Your task to perform on an android device: open sync settings in chrome Image 0: 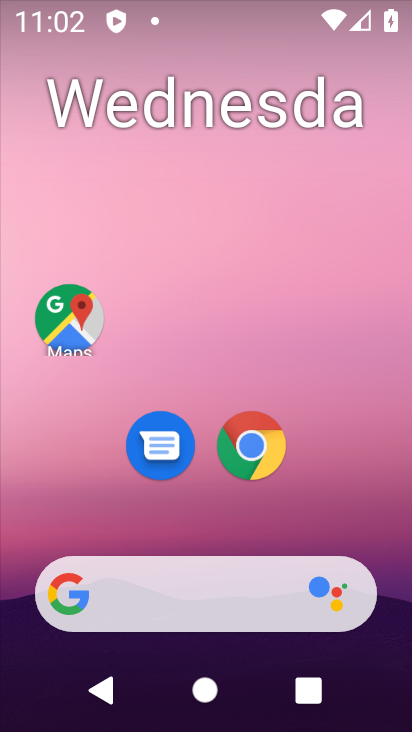
Step 0: drag from (357, 479) to (332, 90)
Your task to perform on an android device: open sync settings in chrome Image 1: 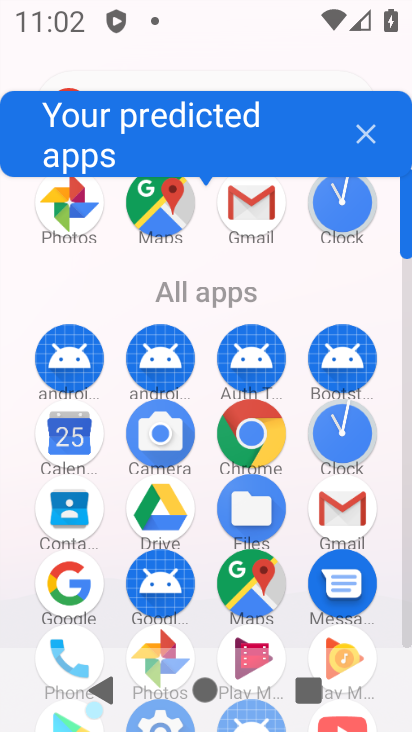
Step 1: click (259, 418)
Your task to perform on an android device: open sync settings in chrome Image 2: 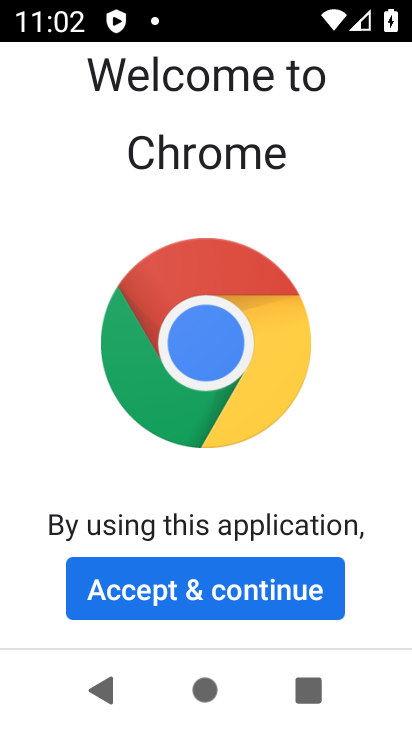
Step 2: click (321, 612)
Your task to perform on an android device: open sync settings in chrome Image 3: 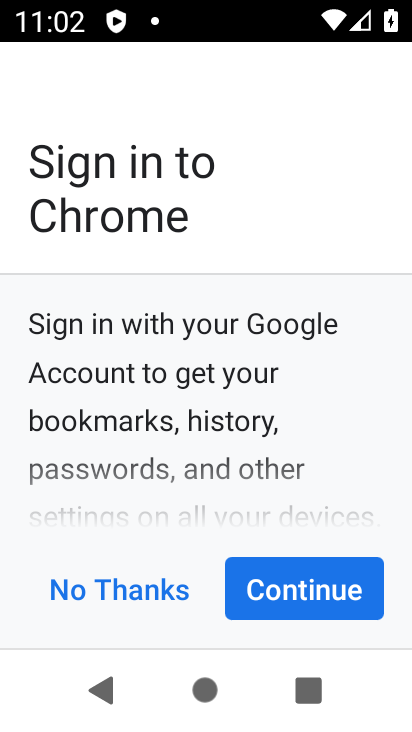
Step 3: click (330, 573)
Your task to perform on an android device: open sync settings in chrome Image 4: 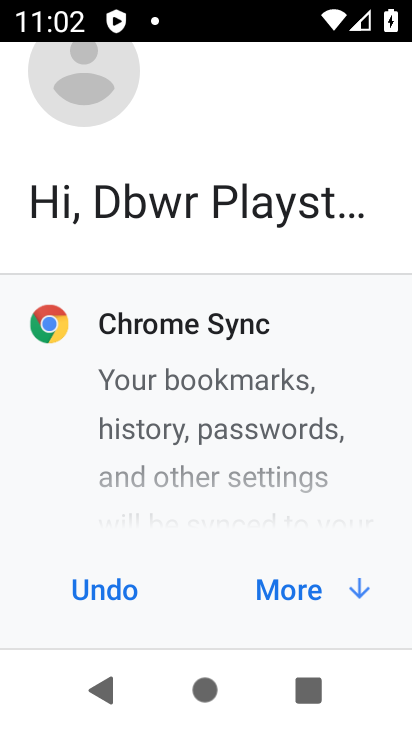
Step 4: click (330, 573)
Your task to perform on an android device: open sync settings in chrome Image 5: 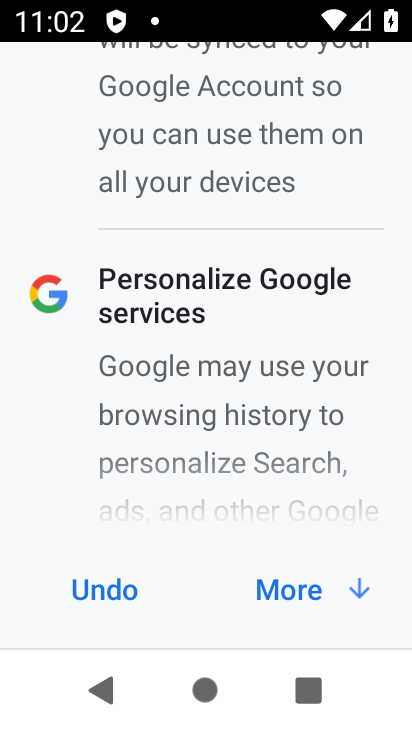
Step 5: click (329, 582)
Your task to perform on an android device: open sync settings in chrome Image 6: 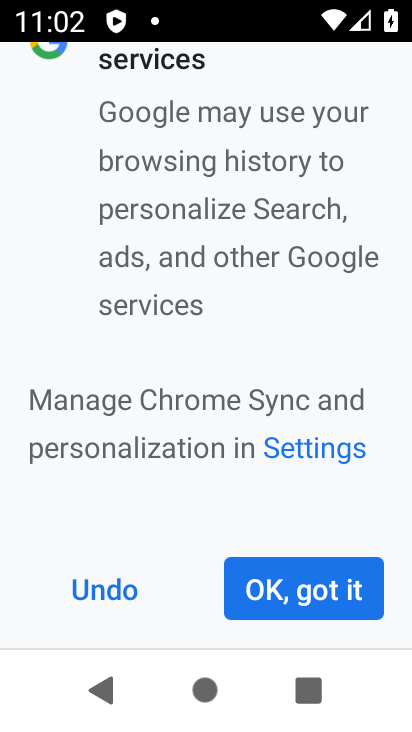
Step 6: click (329, 582)
Your task to perform on an android device: open sync settings in chrome Image 7: 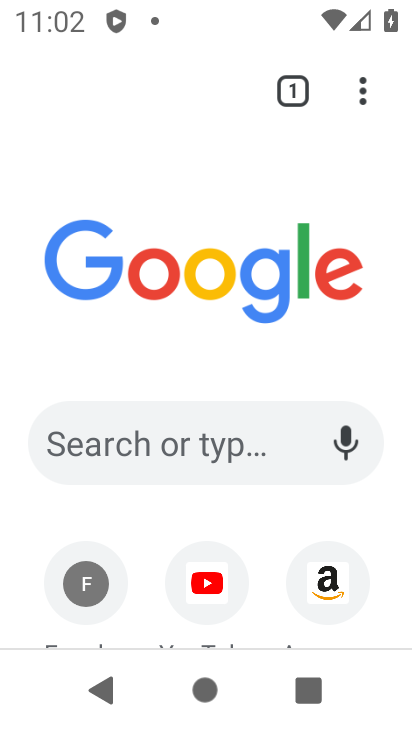
Step 7: click (361, 98)
Your task to perform on an android device: open sync settings in chrome Image 8: 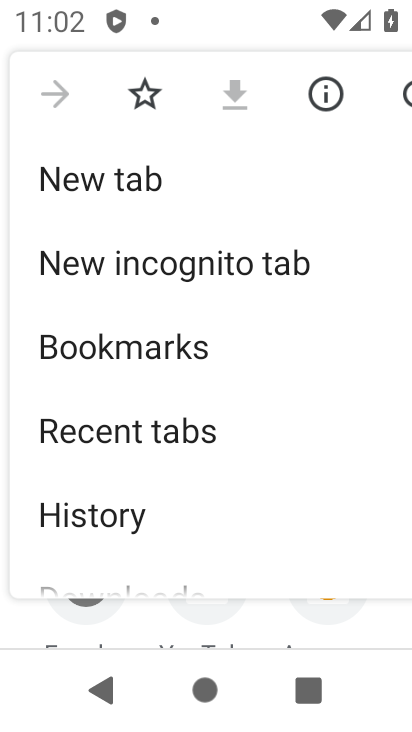
Step 8: drag from (199, 479) to (247, 193)
Your task to perform on an android device: open sync settings in chrome Image 9: 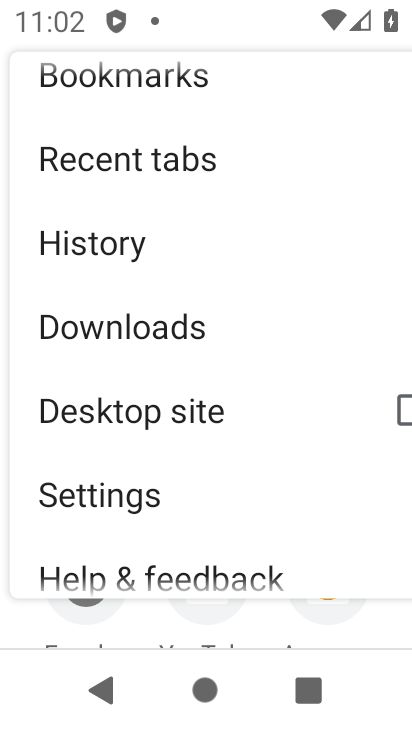
Step 9: click (205, 496)
Your task to perform on an android device: open sync settings in chrome Image 10: 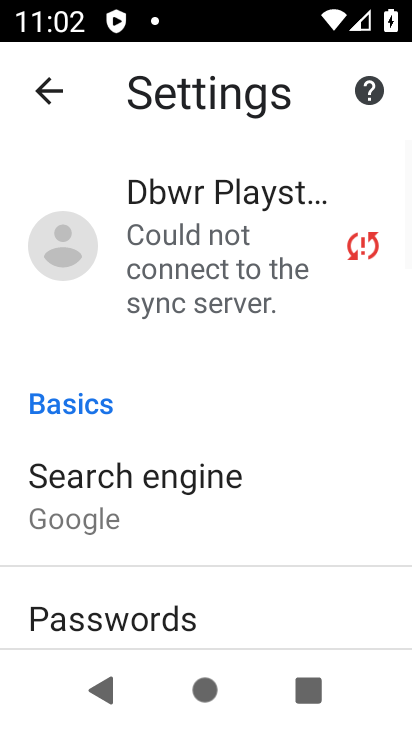
Step 10: drag from (209, 510) to (223, 181)
Your task to perform on an android device: open sync settings in chrome Image 11: 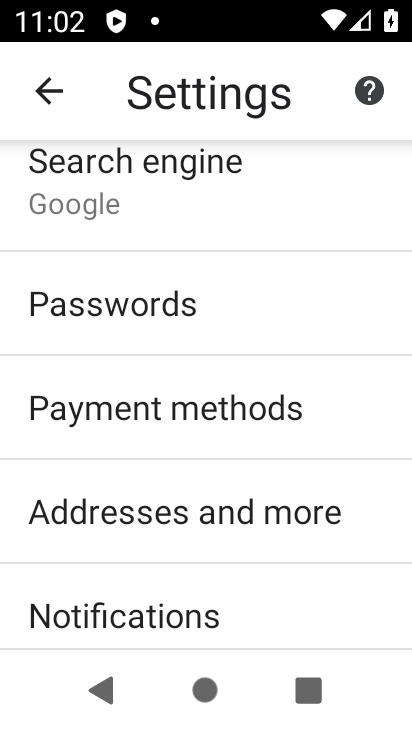
Step 11: drag from (251, 568) to (252, 333)
Your task to perform on an android device: open sync settings in chrome Image 12: 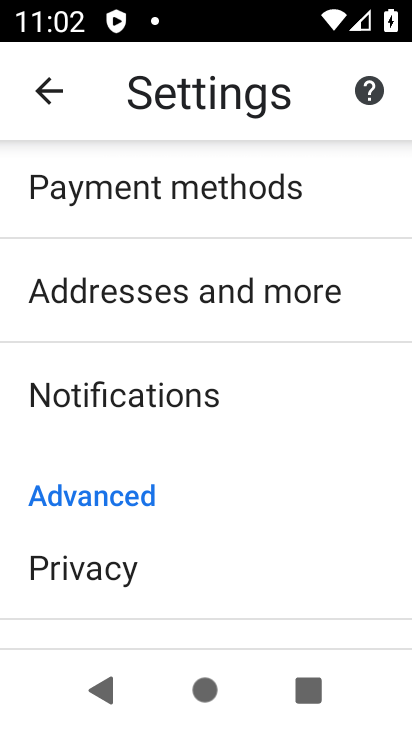
Step 12: drag from (223, 565) to (227, 245)
Your task to perform on an android device: open sync settings in chrome Image 13: 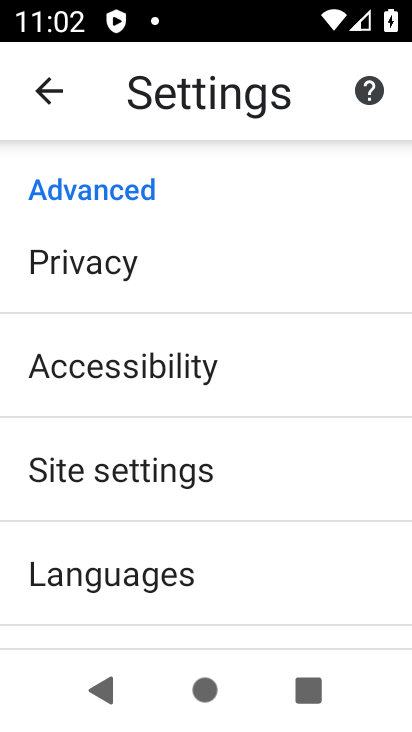
Step 13: drag from (234, 538) to (230, 303)
Your task to perform on an android device: open sync settings in chrome Image 14: 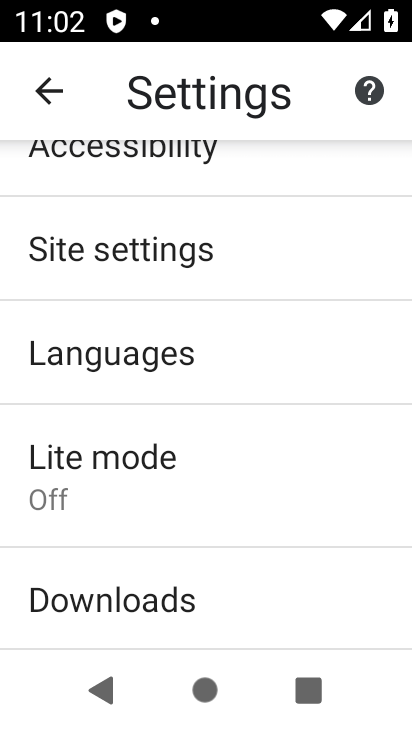
Step 14: drag from (223, 523) to (250, 297)
Your task to perform on an android device: open sync settings in chrome Image 15: 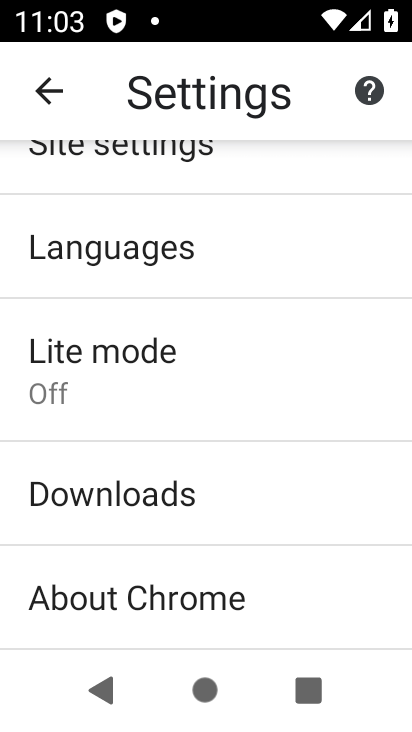
Step 15: drag from (273, 222) to (279, 484)
Your task to perform on an android device: open sync settings in chrome Image 16: 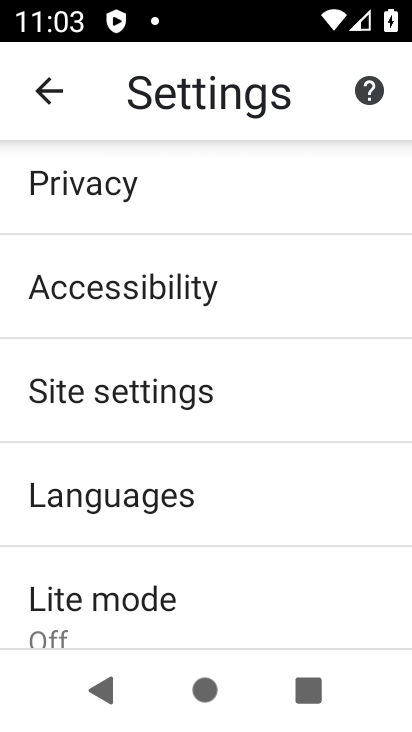
Step 16: click (222, 395)
Your task to perform on an android device: open sync settings in chrome Image 17: 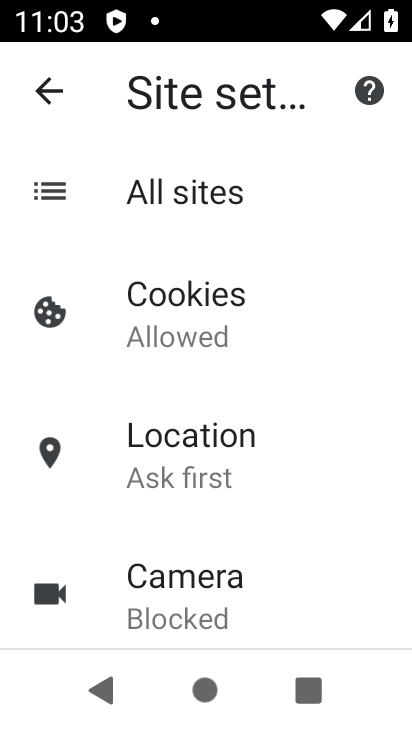
Step 17: drag from (282, 617) to (290, 407)
Your task to perform on an android device: open sync settings in chrome Image 18: 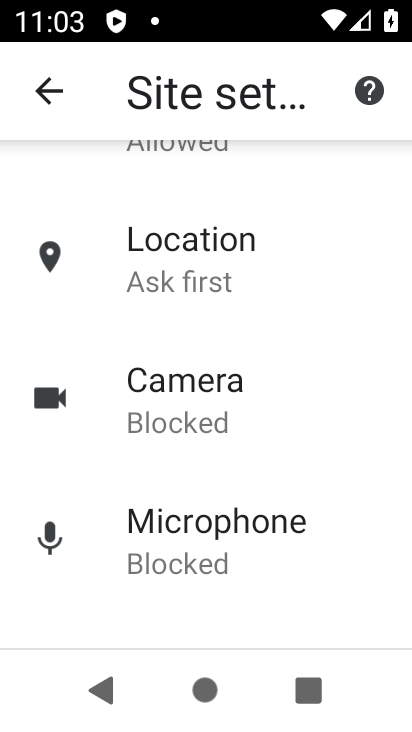
Step 18: drag from (257, 585) to (262, 310)
Your task to perform on an android device: open sync settings in chrome Image 19: 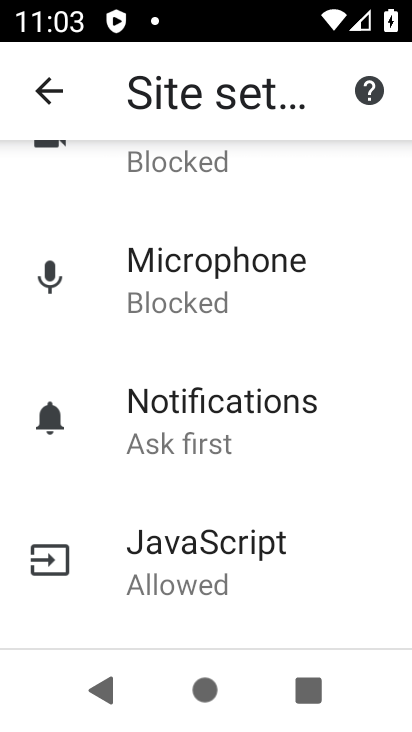
Step 19: drag from (289, 576) to (291, 300)
Your task to perform on an android device: open sync settings in chrome Image 20: 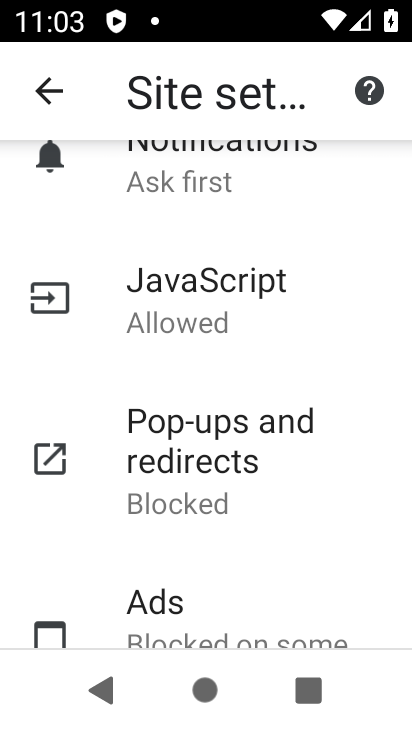
Step 20: drag from (276, 568) to (282, 264)
Your task to perform on an android device: open sync settings in chrome Image 21: 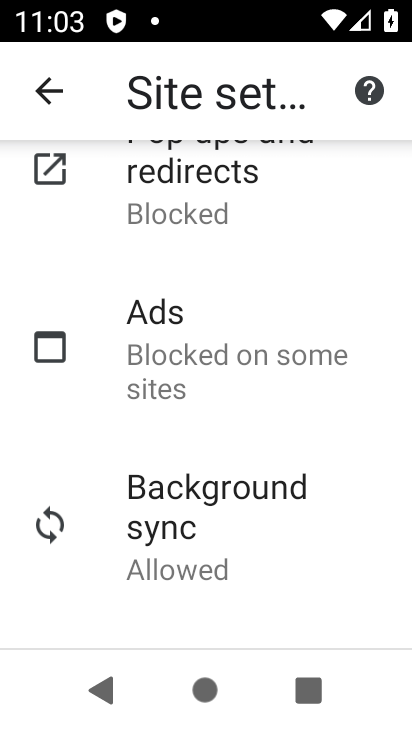
Step 21: click (213, 492)
Your task to perform on an android device: open sync settings in chrome Image 22: 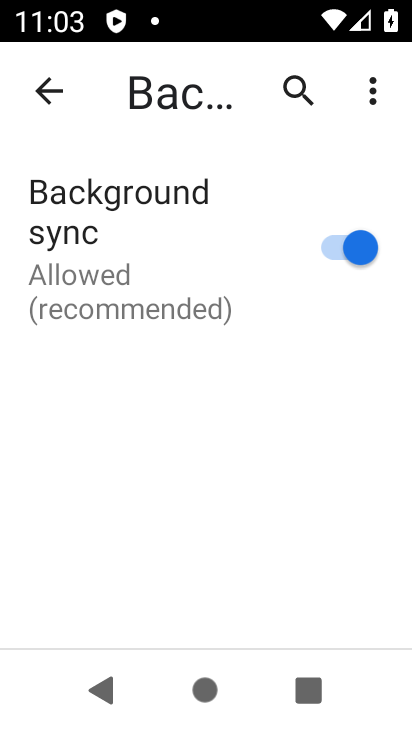
Step 22: task complete